Your task to perform on an android device: Go to privacy settings Image 0: 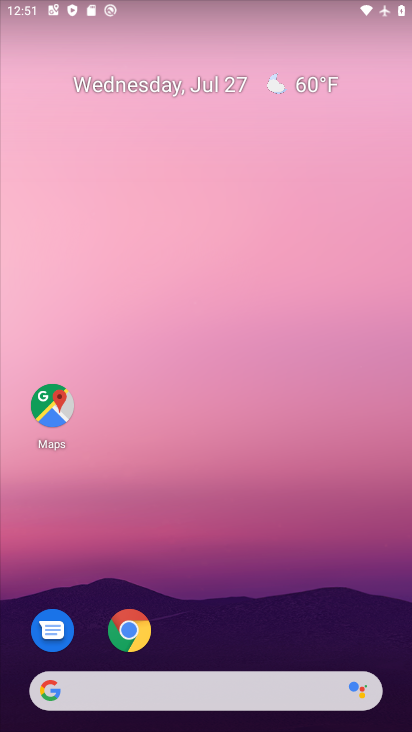
Step 0: press home button
Your task to perform on an android device: Go to privacy settings Image 1: 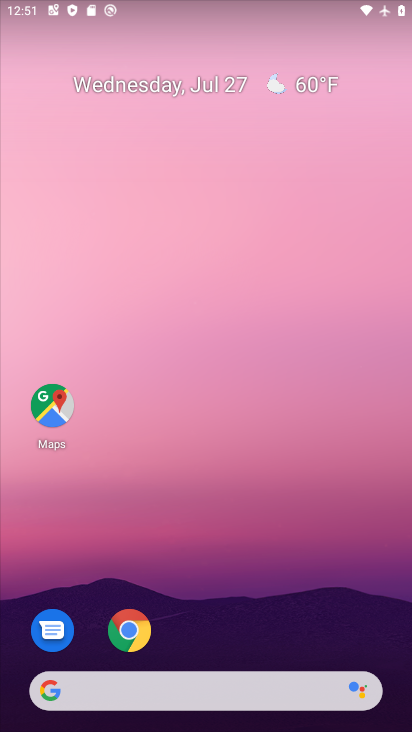
Step 1: drag from (233, 606) to (306, 34)
Your task to perform on an android device: Go to privacy settings Image 2: 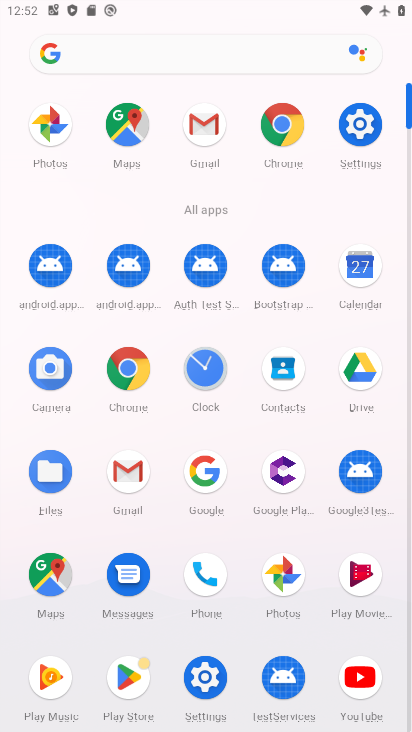
Step 2: click (363, 115)
Your task to perform on an android device: Go to privacy settings Image 3: 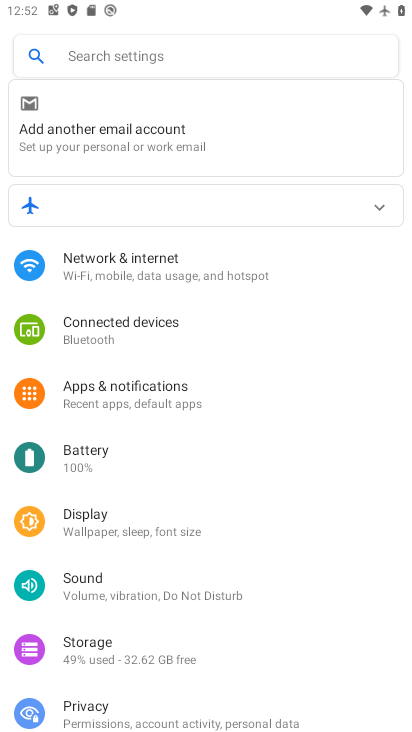
Step 3: click (96, 714)
Your task to perform on an android device: Go to privacy settings Image 4: 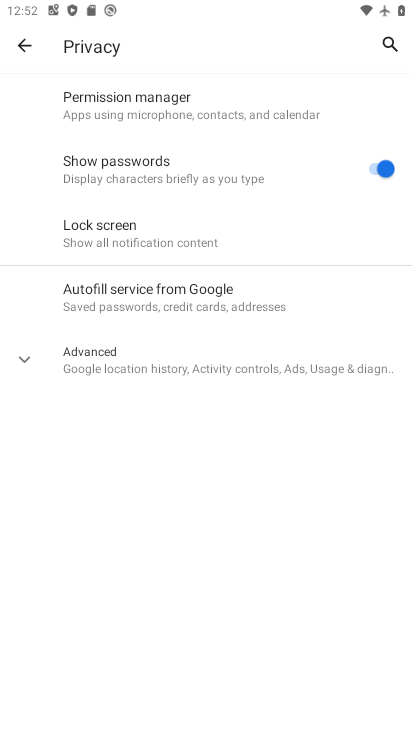
Step 4: task complete